Your task to perform on an android device: open device folders in google photos Image 0: 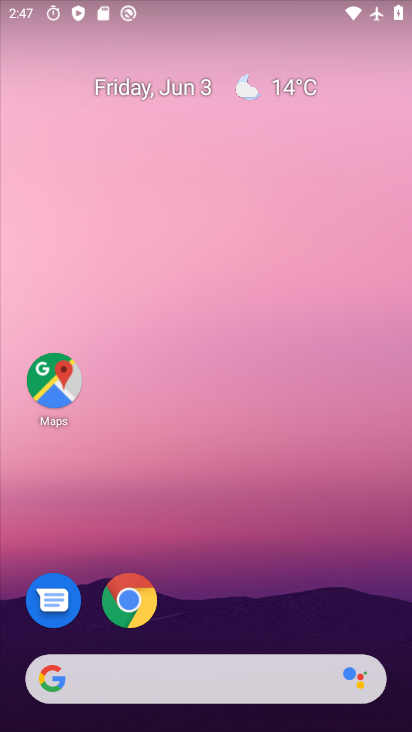
Step 0: drag from (255, 554) to (179, 15)
Your task to perform on an android device: open device folders in google photos Image 1: 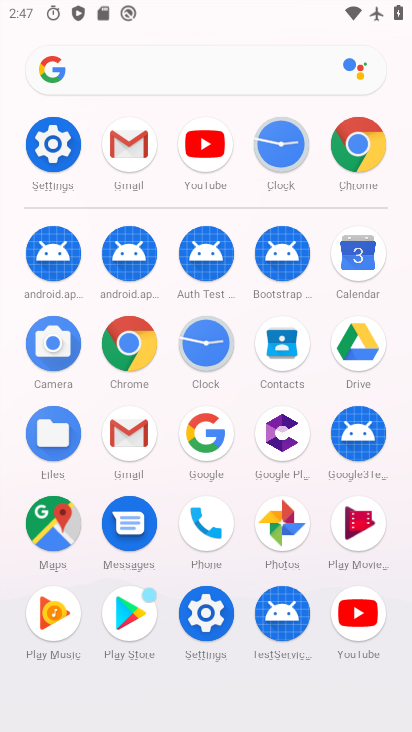
Step 1: click (278, 518)
Your task to perform on an android device: open device folders in google photos Image 2: 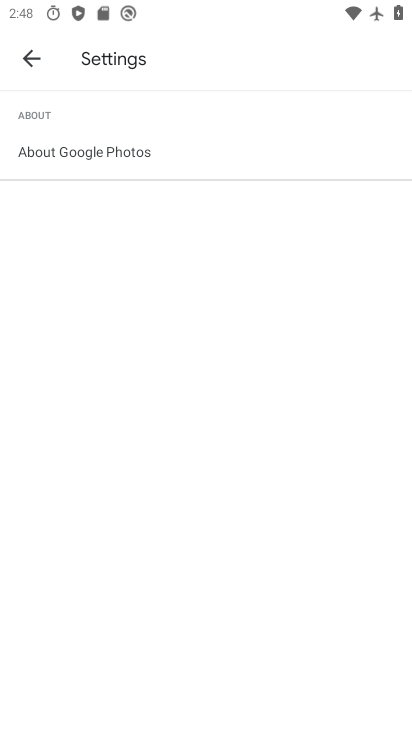
Step 2: click (35, 57)
Your task to perform on an android device: open device folders in google photos Image 3: 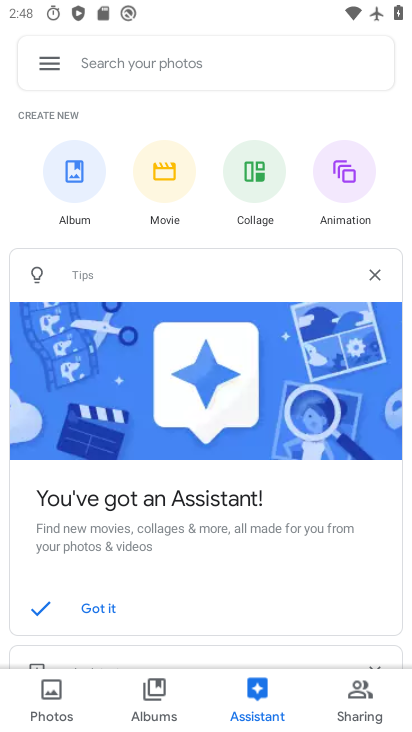
Step 3: click (42, 61)
Your task to perform on an android device: open device folders in google photos Image 4: 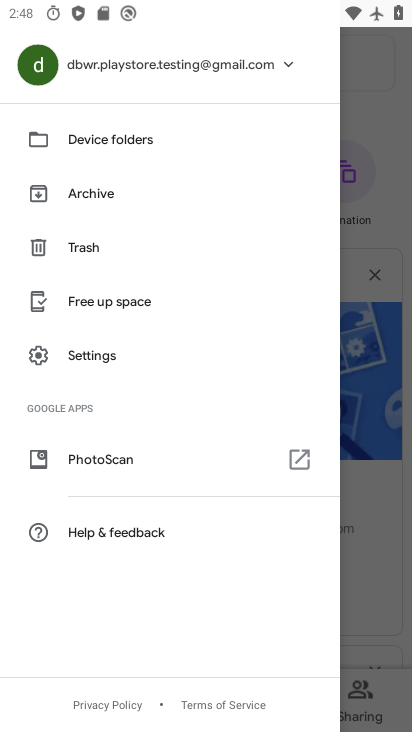
Step 4: click (116, 135)
Your task to perform on an android device: open device folders in google photos Image 5: 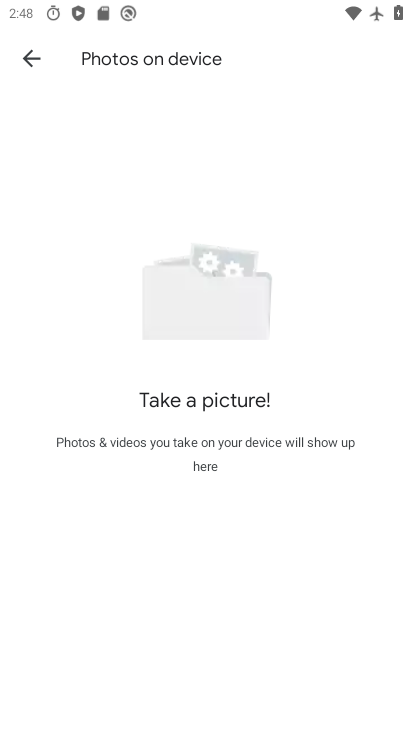
Step 5: task complete